Your task to perform on an android device: install app "Lyft - Rideshare, Bikes, Scooters & Transit" Image 0: 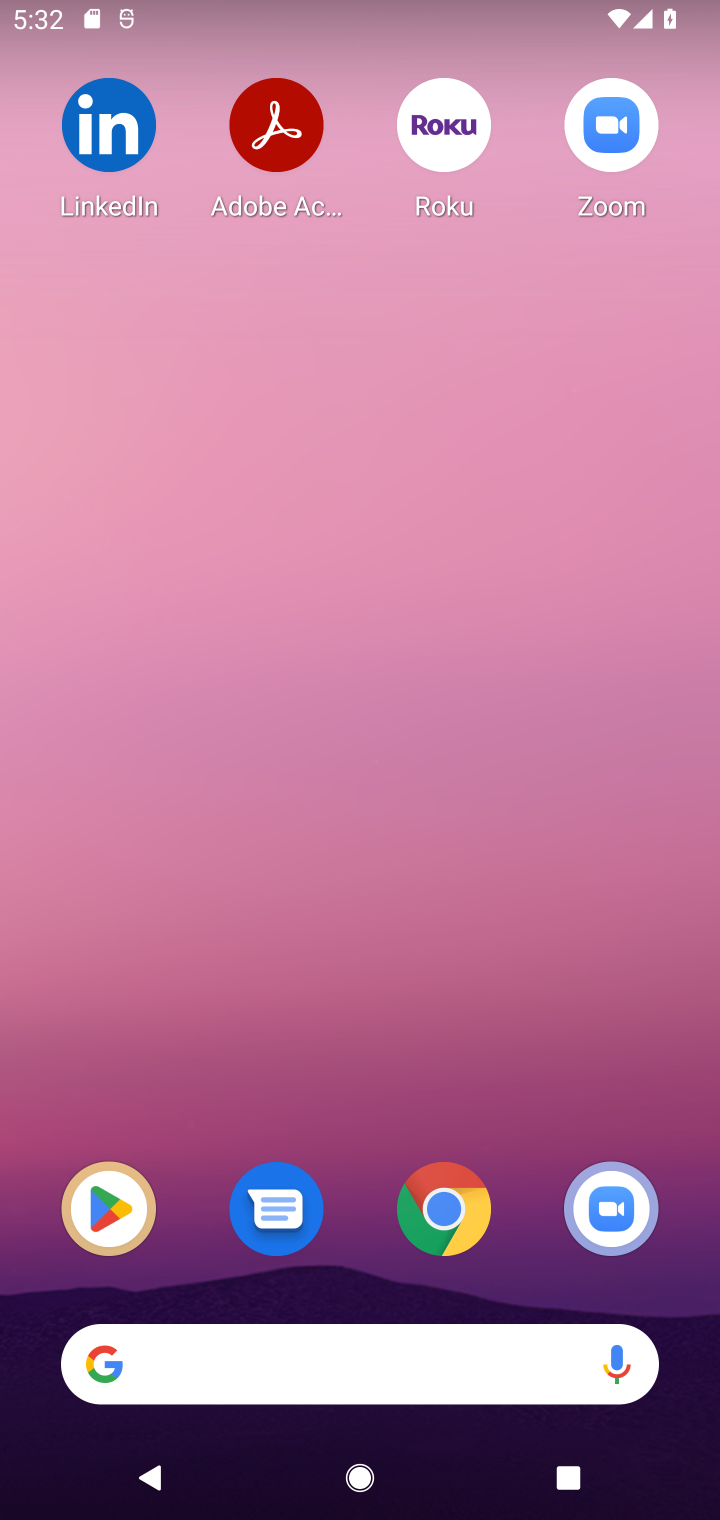
Step 0: click (125, 1216)
Your task to perform on an android device: install app "Lyft - Rideshare, Bikes, Scooters & Transit" Image 1: 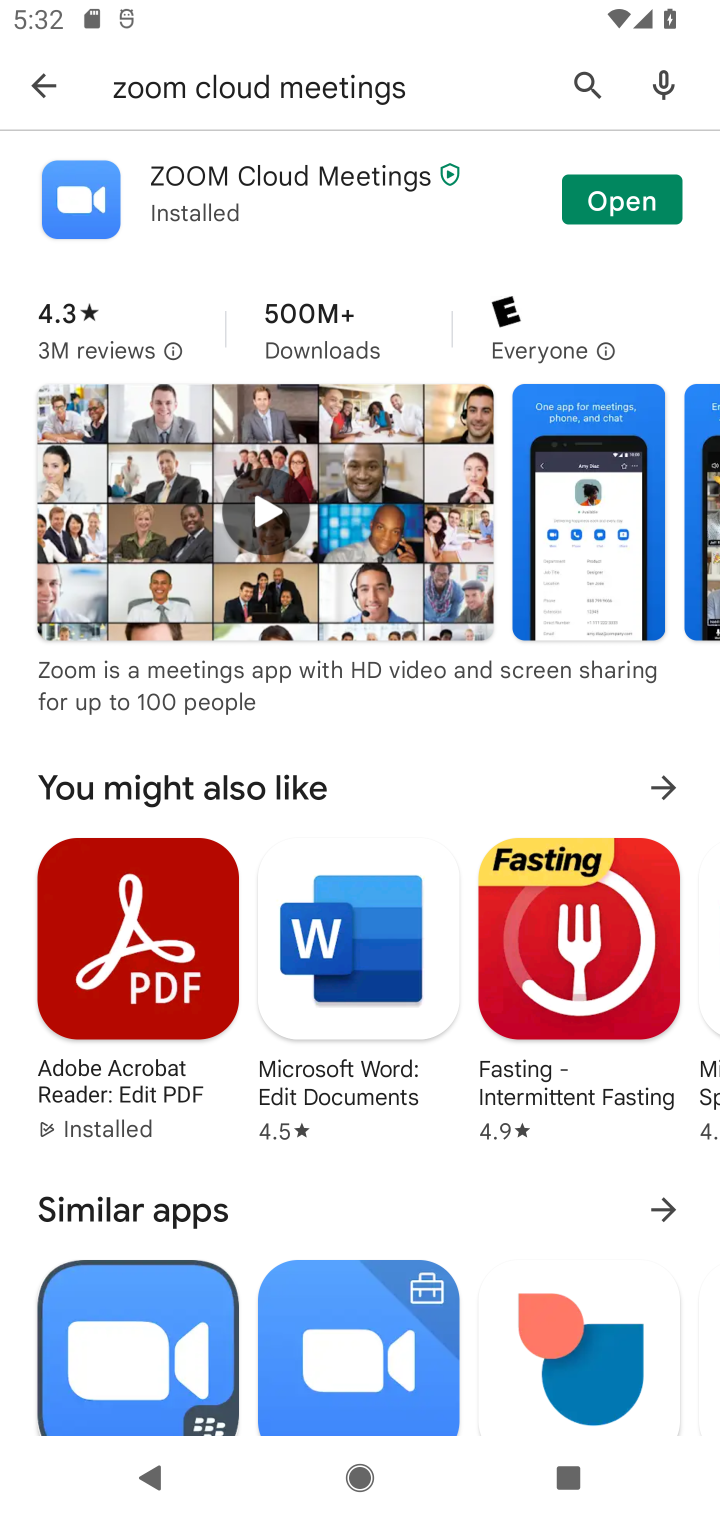
Step 1: click (597, 96)
Your task to perform on an android device: install app "Lyft - Rideshare, Bikes, Scooters & Transit" Image 2: 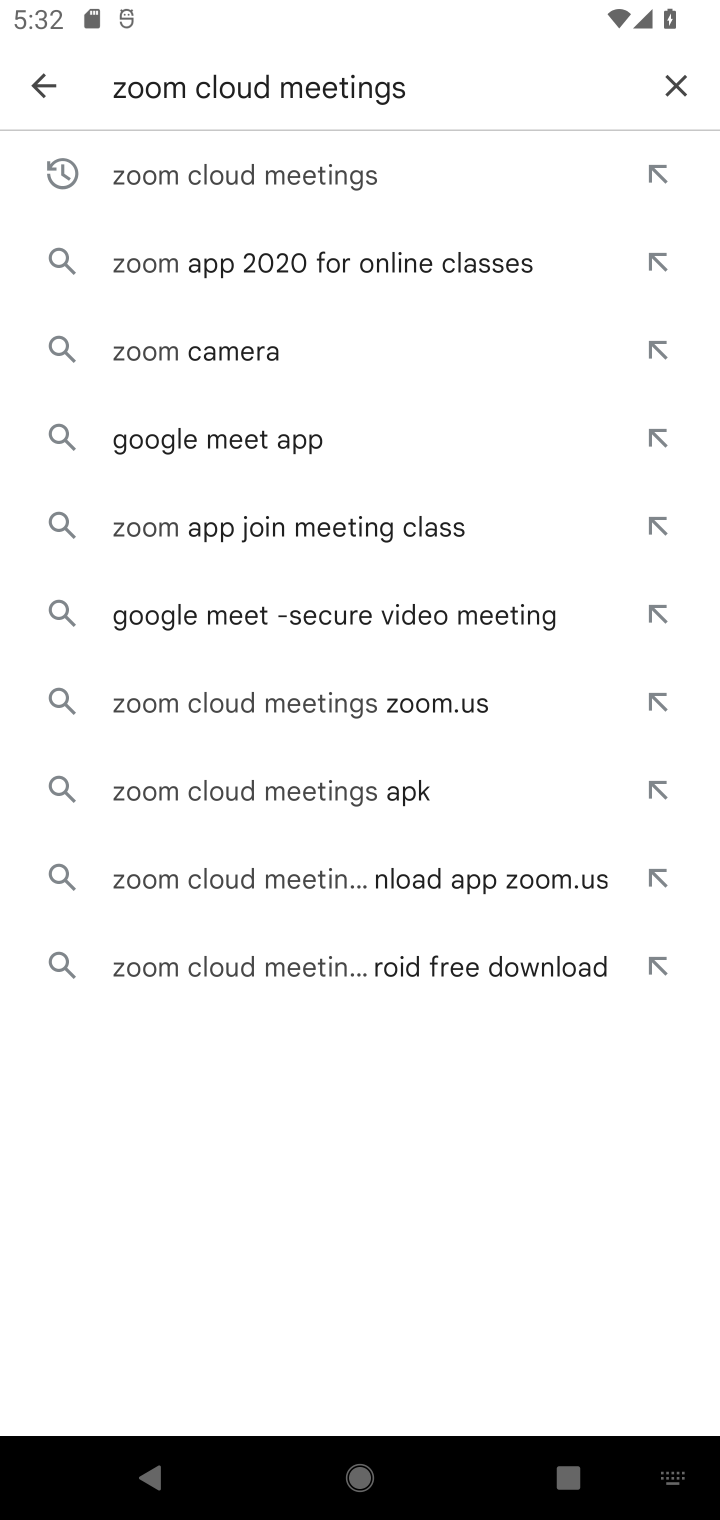
Step 2: click (667, 83)
Your task to perform on an android device: install app "Lyft - Rideshare, Bikes, Scooters & Transit" Image 3: 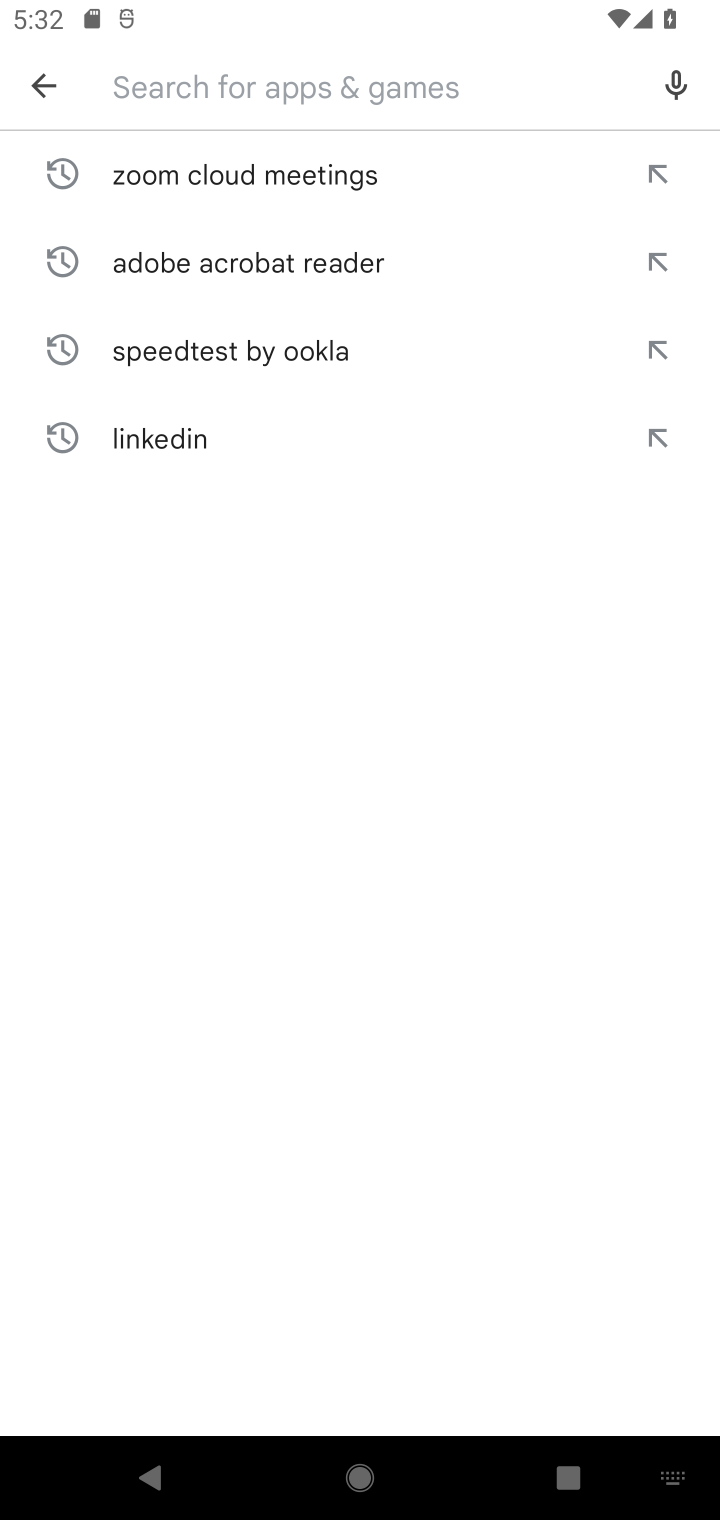
Step 3: type "Lyft - Rideshare, Bikes, Scooters & Transit"
Your task to perform on an android device: install app "Lyft - Rideshare, Bikes, Scooters & Transit" Image 4: 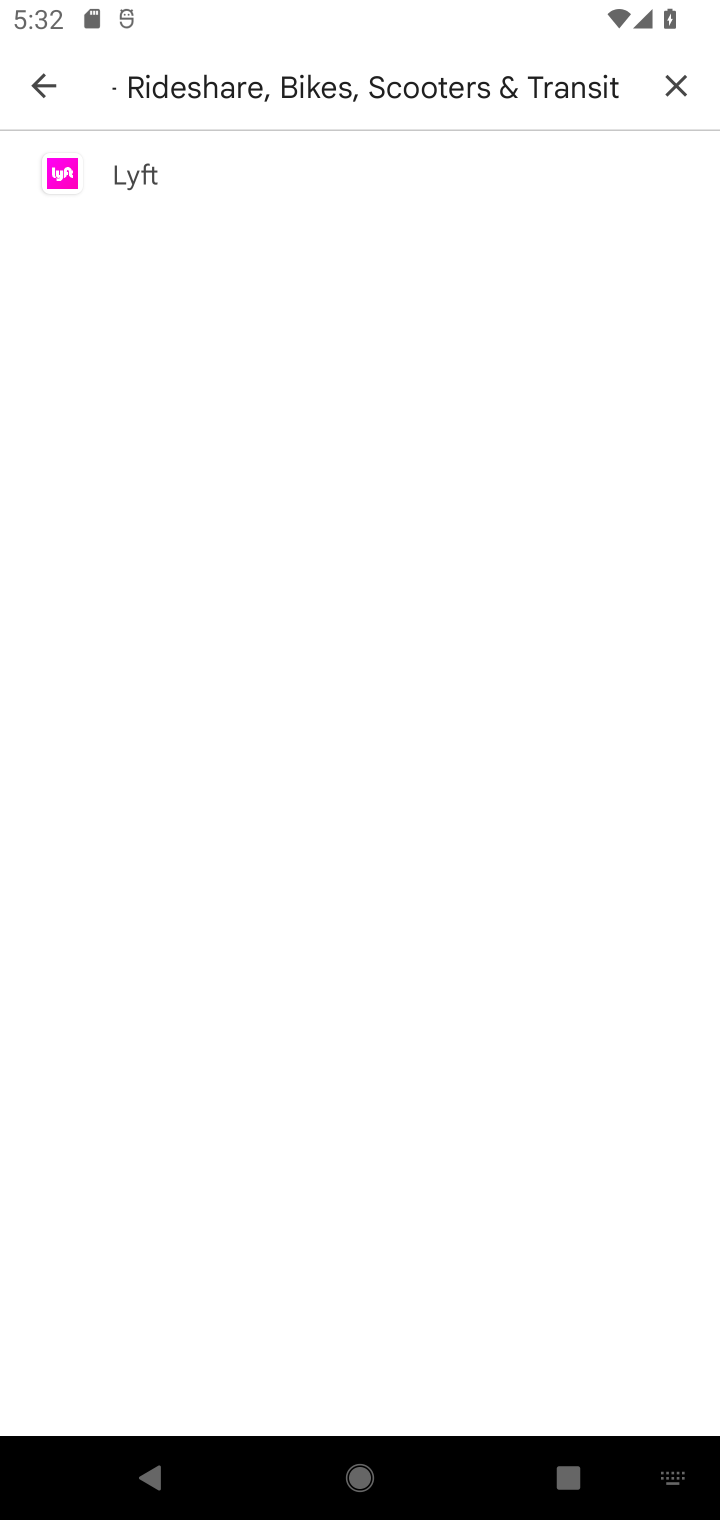
Step 4: click (139, 182)
Your task to perform on an android device: install app "Lyft - Rideshare, Bikes, Scooters & Transit" Image 5: 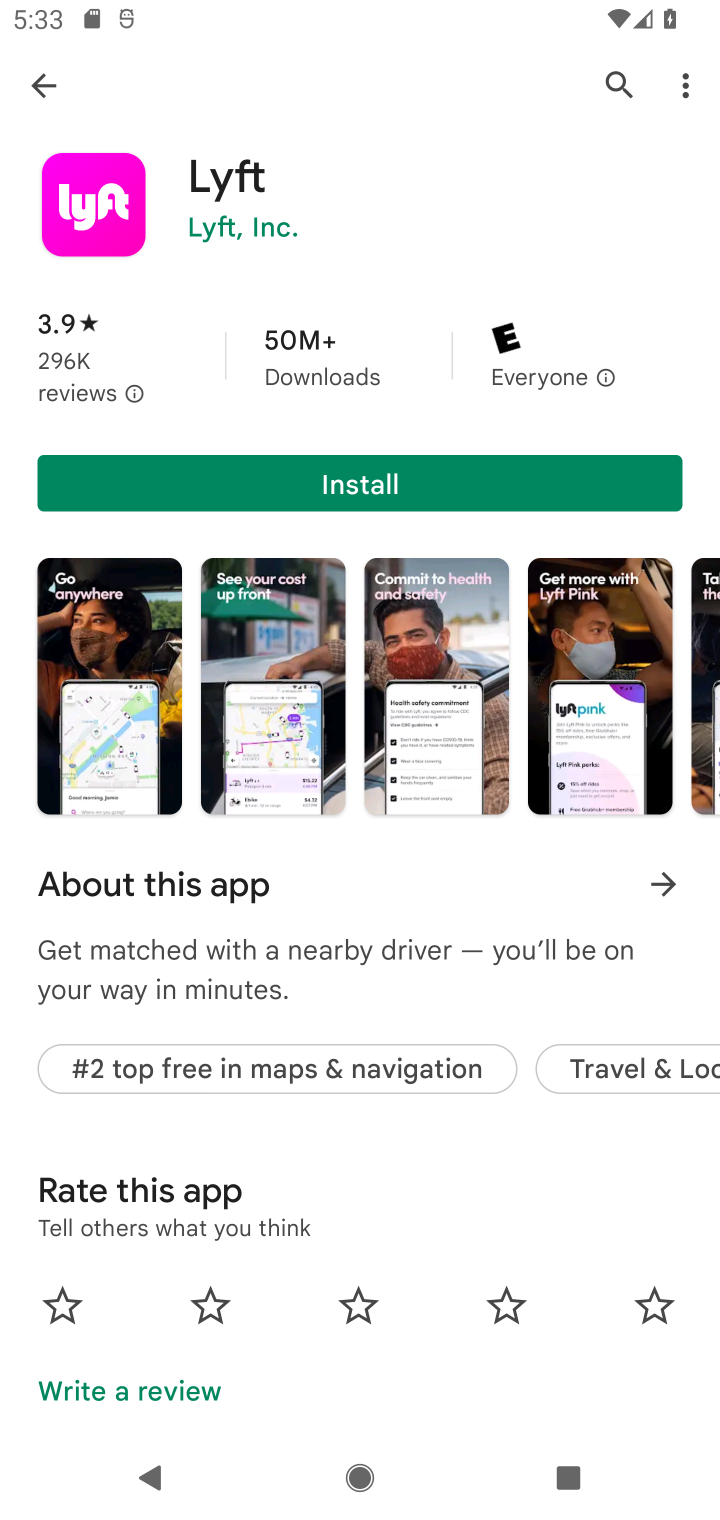
Step 5: click (338, 488)
Your task to perform on an android device: install app "Lyft - Rideshare, Bikes, Scooters & Transit" Image 6: 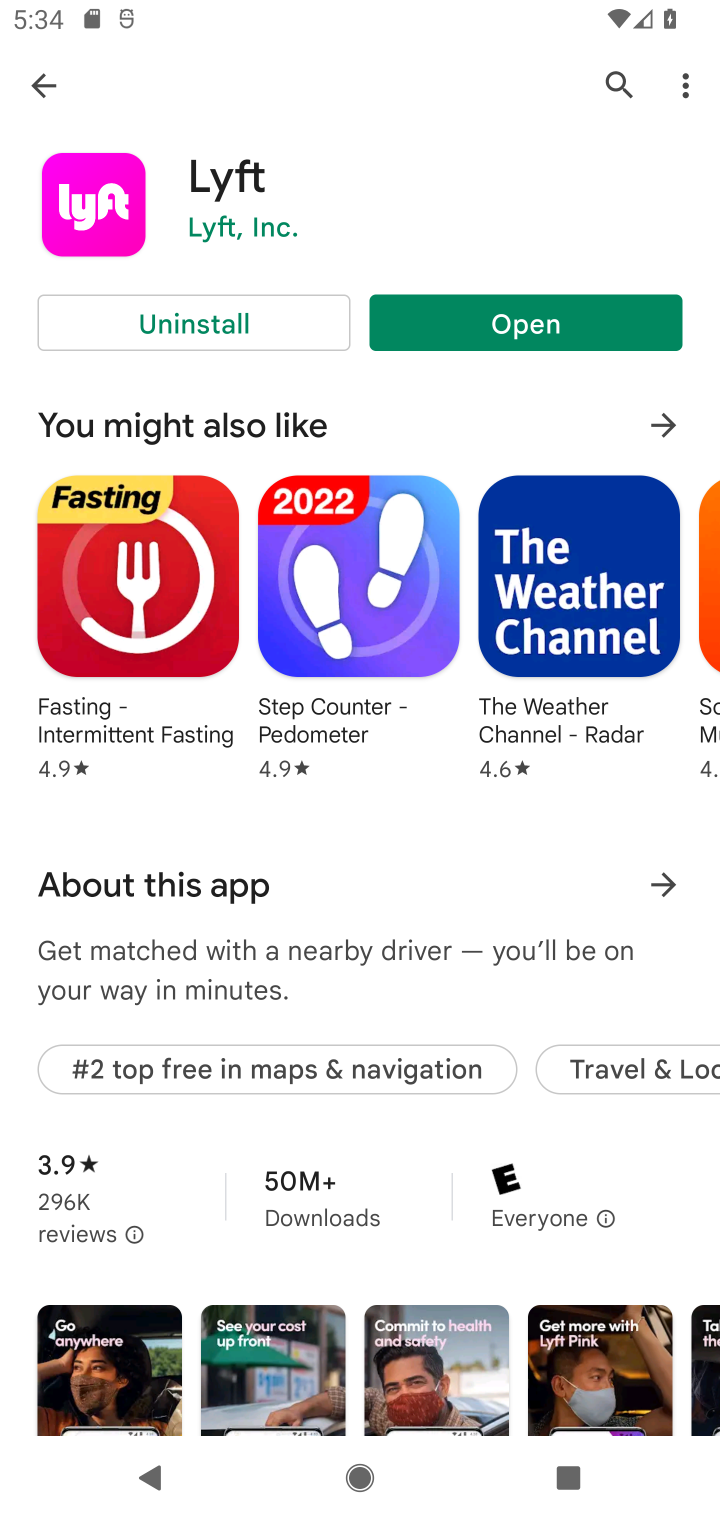
Step 6: task complete